Your task to perform on an android device: turn on the 24-hour format for clock Image 0: 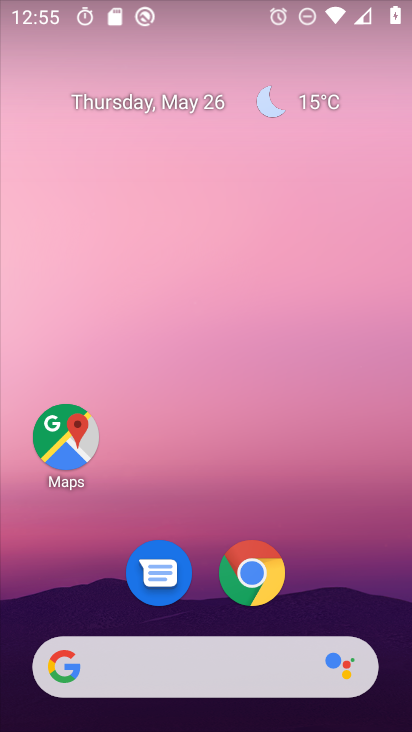
Step 0: drag from (333, 614) to (395, 427)
Your task to perform on an android device: turn on the 24-hour format for clock Image 1: 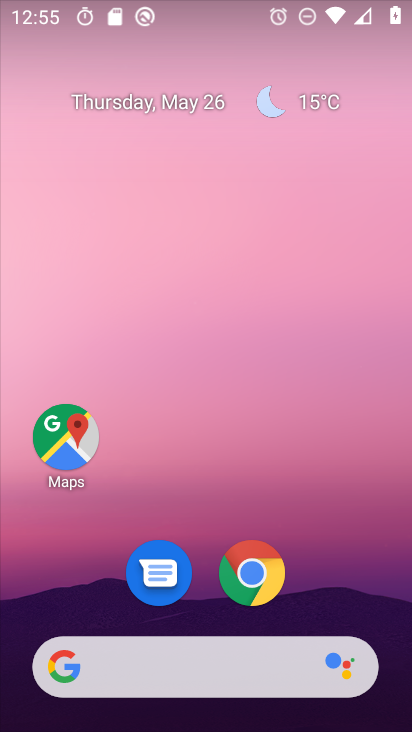
Step 1: drag from (358, 625) to (39, 175)
Your task to perform on an android device: turn on the 24-hour format for clock Image 2: 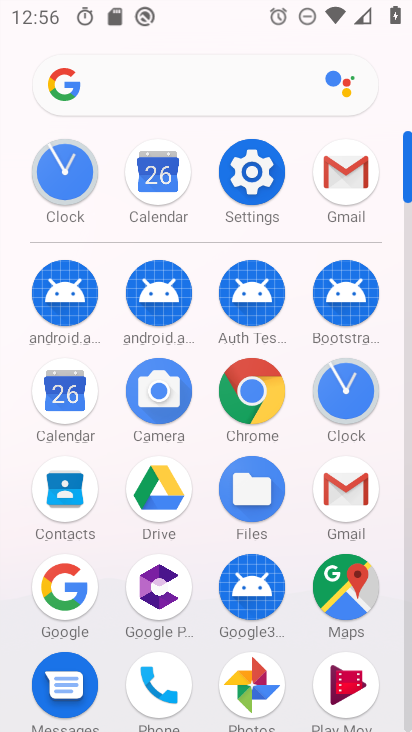
Step 2: click (53, 176)
Your task to perform on an android device: turn on the 24-hour format for clock Image 3: 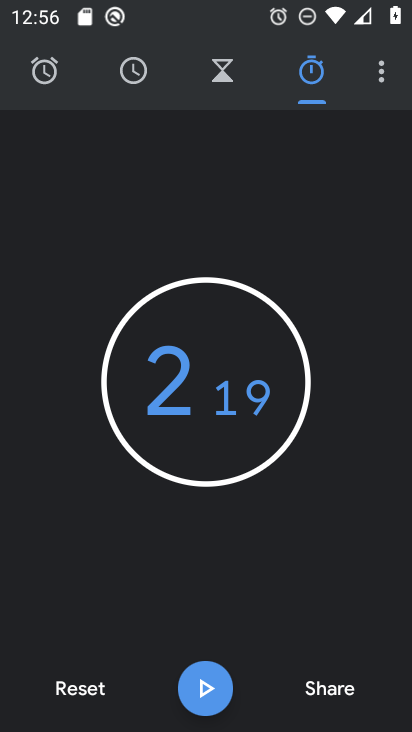
Step 3: click (385, 77)
Your task to perform on an android device: turn on the 24-hour format for clock Image 4: 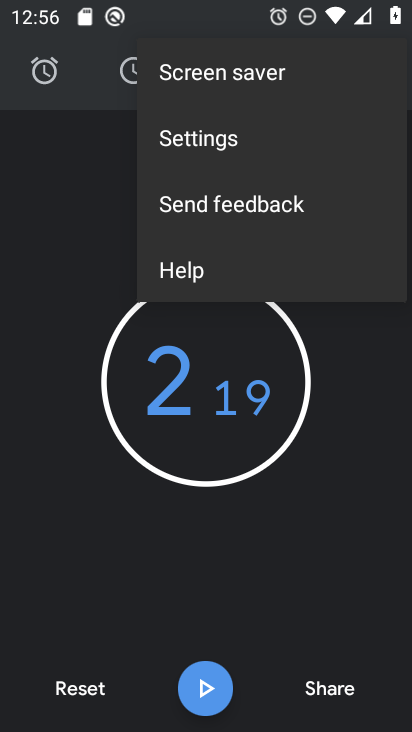
Step 4: click (194, 146)
Your task to perform on an android device: turn on the 24-hour format for clock Image 5: 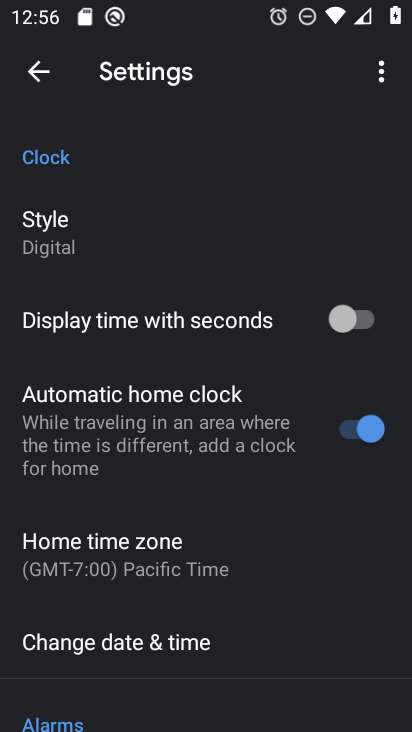
Step 5: click (131, 649)
Your task to perform on an android device: turn on the 24-hour format for clock Image 6: 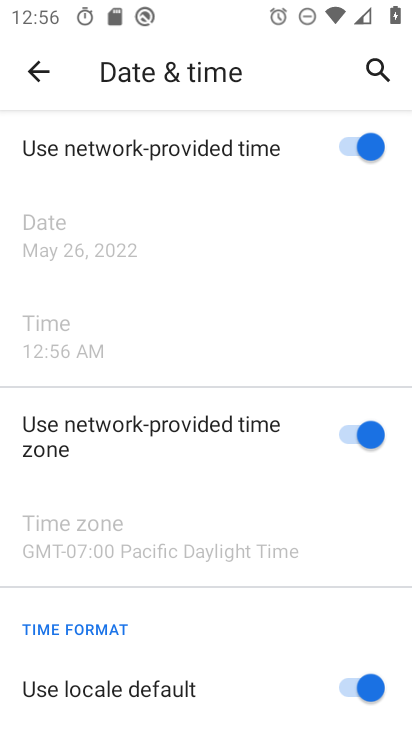
Step 6: drag from (193, 631) to (182, 155)
Your task to perform on an android device: turn on the 24-hour format for clock Image 7: 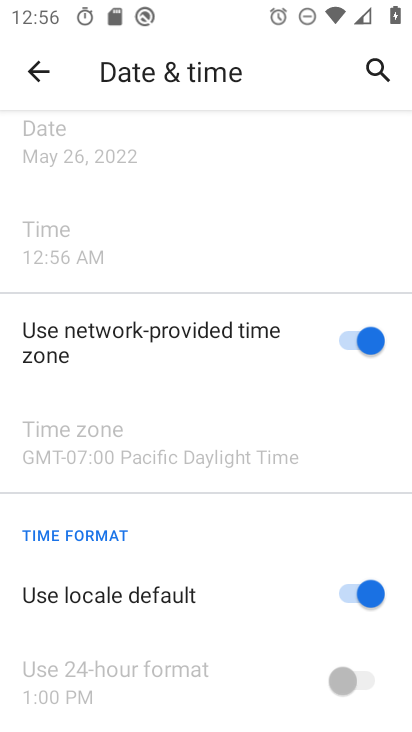
Step 7: click (378, 601)
Your task to perform on an android device: turn on the 24-hour format for clock Image 8: 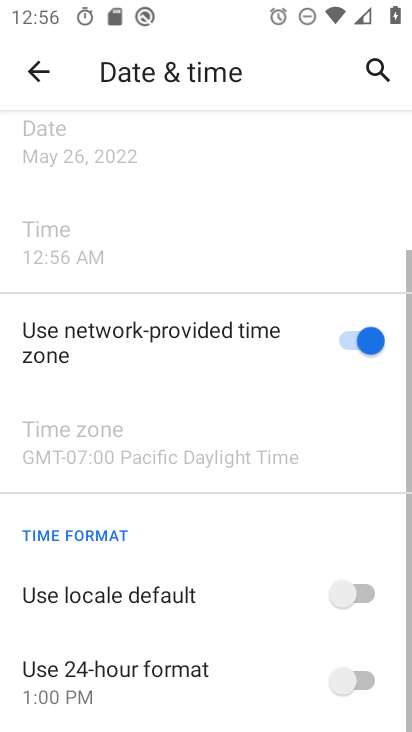
Step 8: click (361, 683)
Your task to perform on an android device: turn on the 24-hour format for clock Image 9: 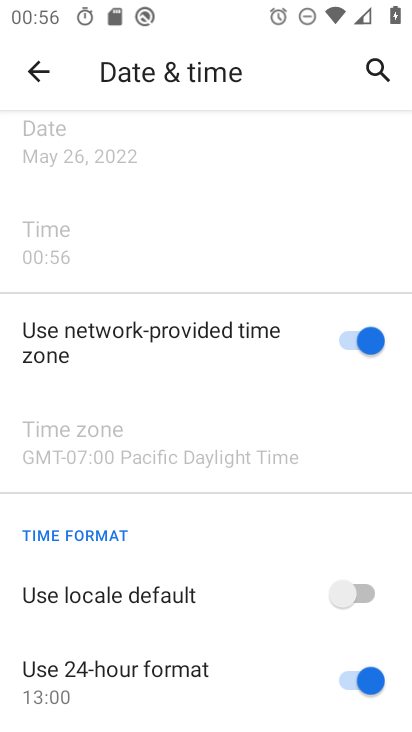
Step 9: task complete